Your task to perform on an android device: Show the shopping cart on bestbuy. Add duracell triple a to the cart on bestbuy Image 0: 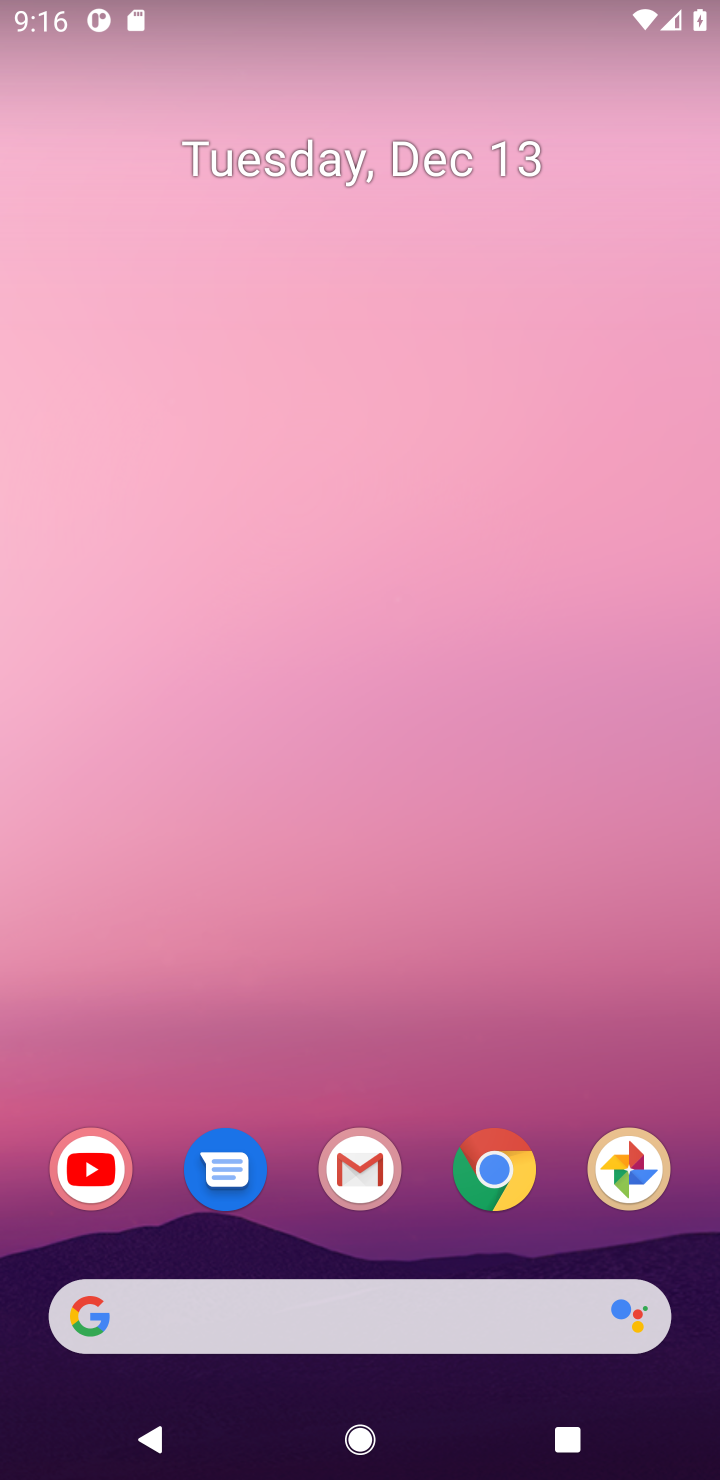
Step 0: click (510, 1150)
Your task to perform on an android device: Show the shopping cart on bestbuy. Add duracell triple a to the cart on bestbuy Image 1: 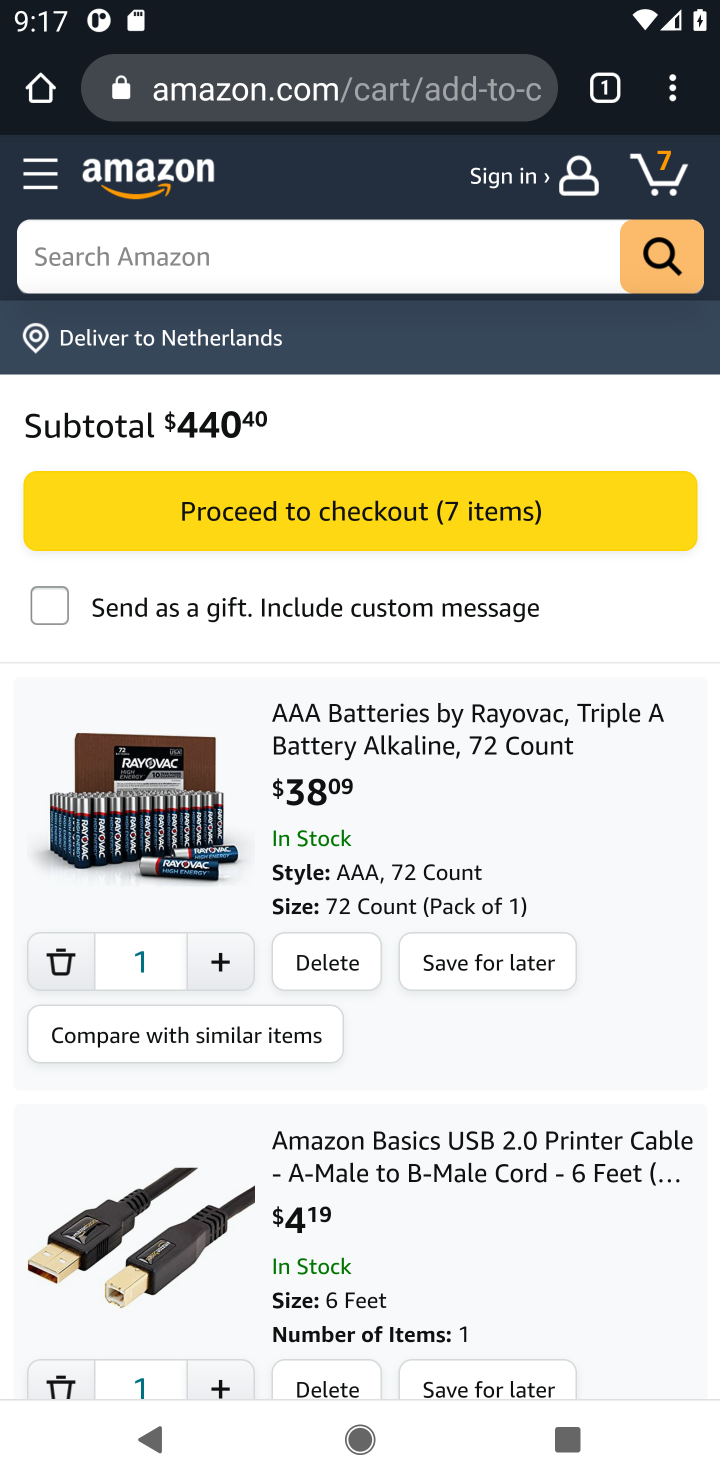
Step 1: task complete